Your task to perform on an android device: Go to Amazon Image 0: 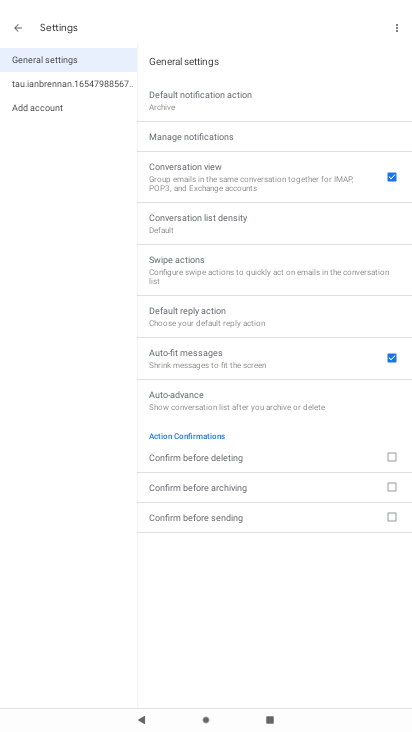
Step 0: press home button
Your task to perform on an android device: Go to Amazon Image 1: 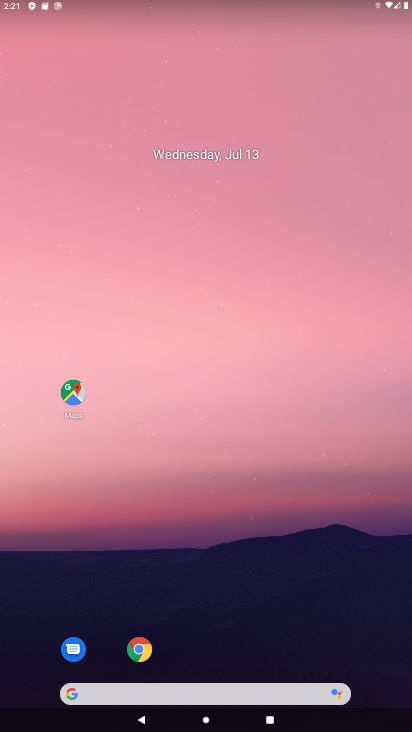
Step 1: click (145, 656)
Your task to perform on an android device: Go to Amazon Image 2: 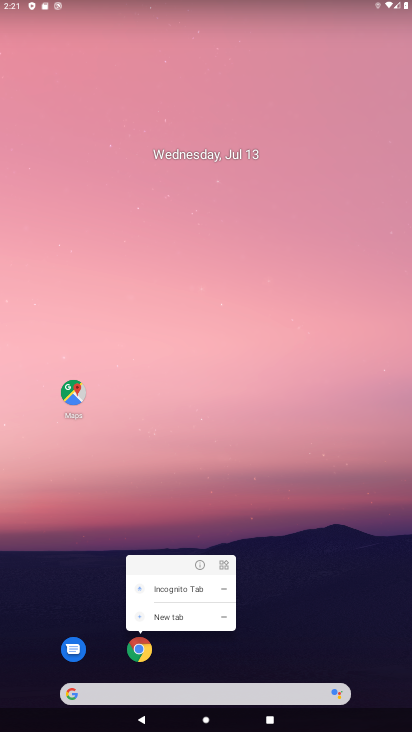
Step 2: click (138, 654)
Your task to perform on an android device: Go to Amazon Image 3: 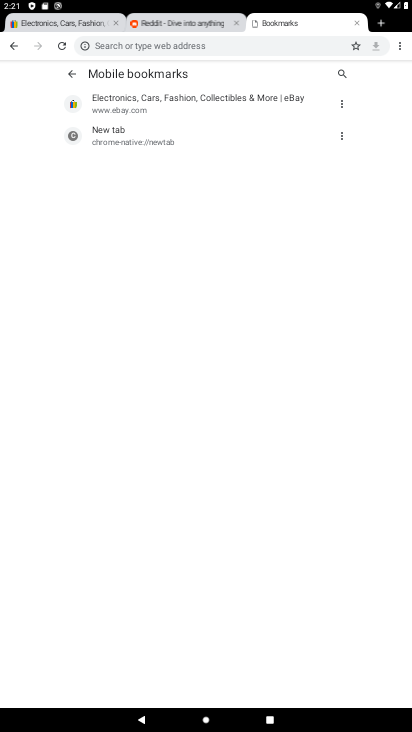
Step 3: click (401, 41)
Your task to perform on an android device: Go to Amazon Image 4: 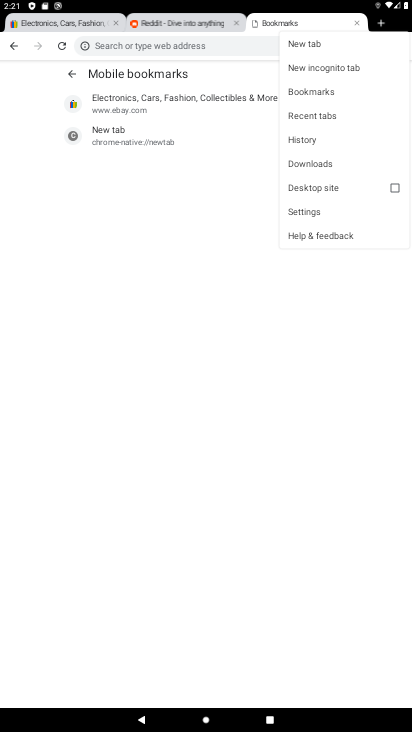
Step 4: click (301, 45)
Your task to perform on an android device: Go to Amazon Image 5: 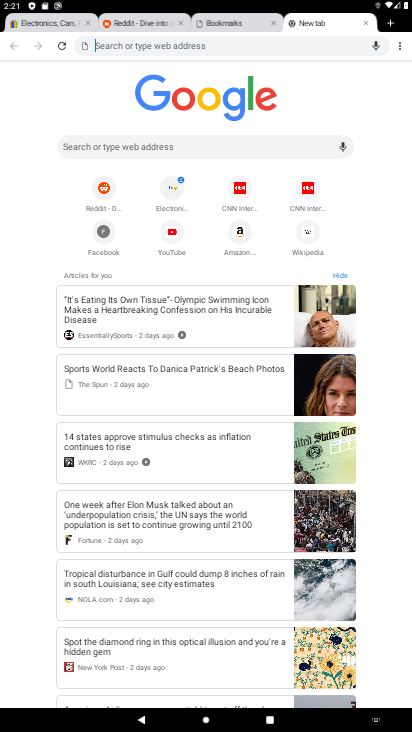
Step 5: click (235, 234)
Your task to perform on an android device: Go to Amazon Image 6: 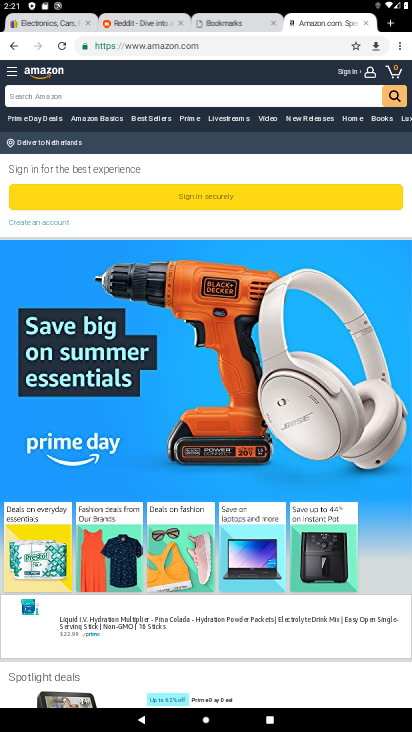
Step 6: task complete